Your task to perform on an android device: clear all cookies in the chrome app Image 0: 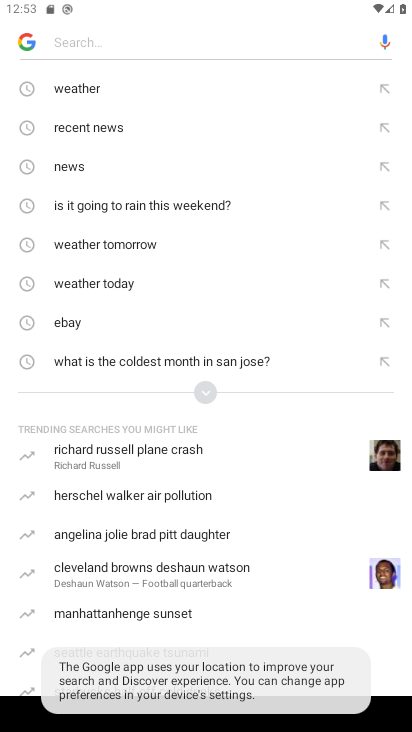
Step 0: press home button
Your task to perform on an android device: clear all cookies in the chrome app Image 1: 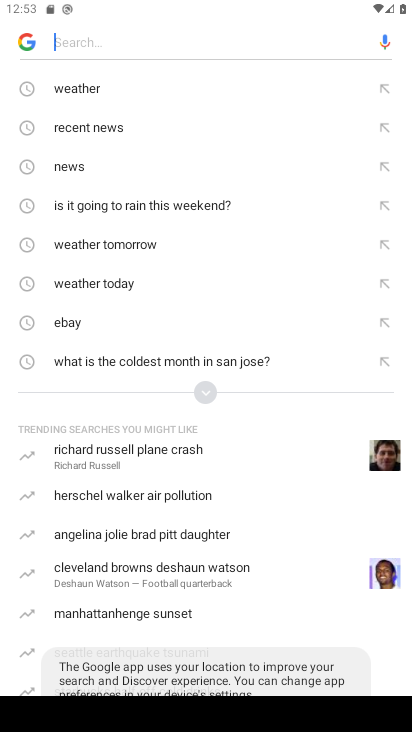
Step 1: press home button
Your task to perform on an android device: clear all cookies in the chrome app Image 2: 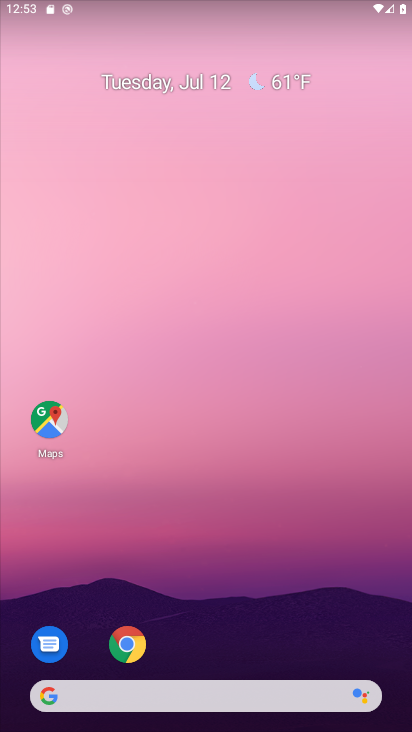
Step 2: drag from (297, 641) to (235, 7)
Your task to perform on an android device: clear all cookies in the chrome app Image 3: 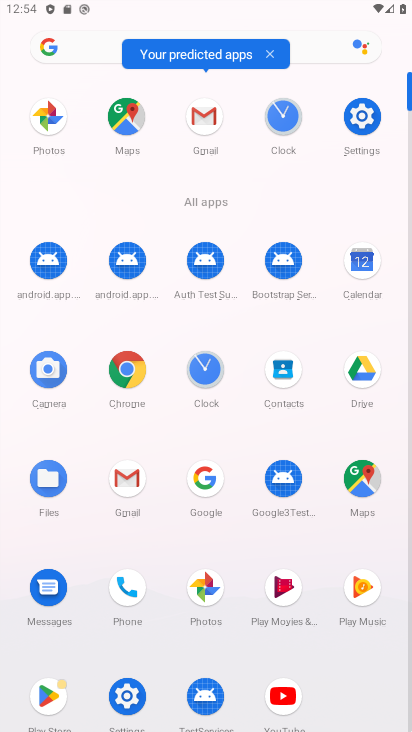
Step 3: click (130, 367)
Your task to perform on an android device: clear all cookies in the chrome app Image 4: 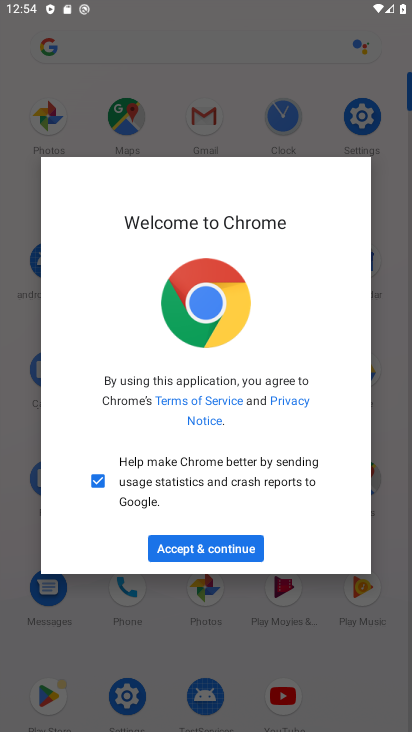
Step 4: click (220, 554)
Your task to perform on an android device: clear all cookies in the chrome app Image 5: 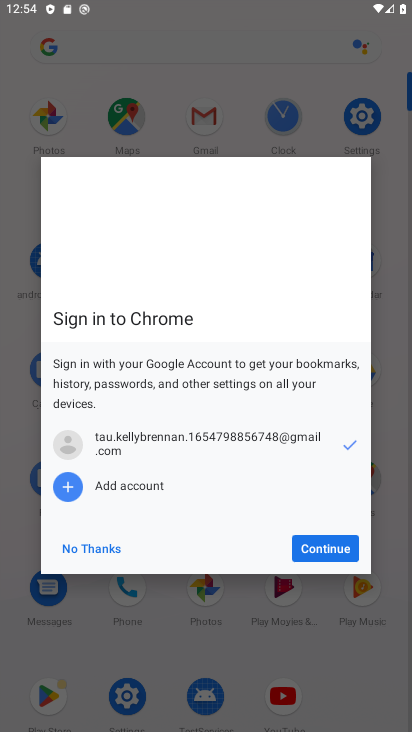
Step 5: click (329, 551)
Your task to perform on an android device: clear all cookies in the chrome app Image 6: 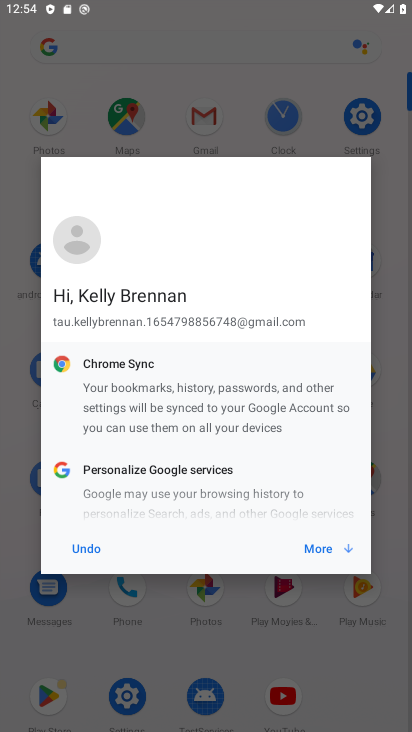
Step 6: click (329, 551)
Your task to perform on an android device: clear all cookies in the chrome app Image 7: 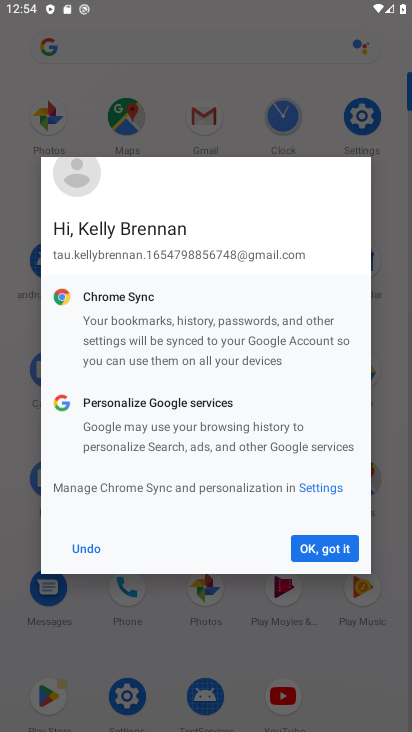
Step 7: click (329, 551)
Your task to perform on an android device: clear all cookies in the chrome app Image 8: 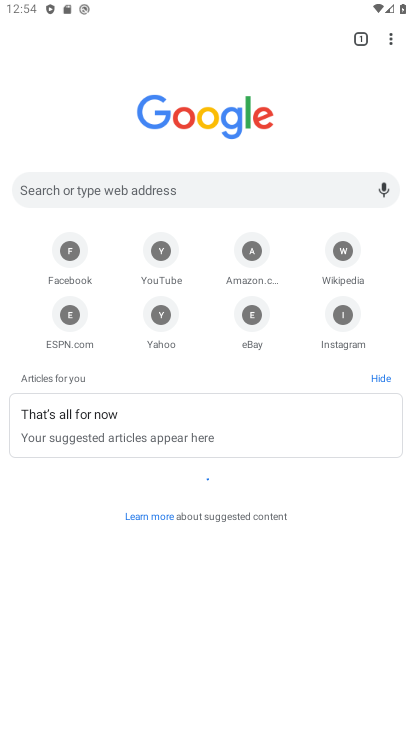
Step 8: click (392, 48)
Your task to perform on an android device: clear all cookies in the chrome app Image 9: 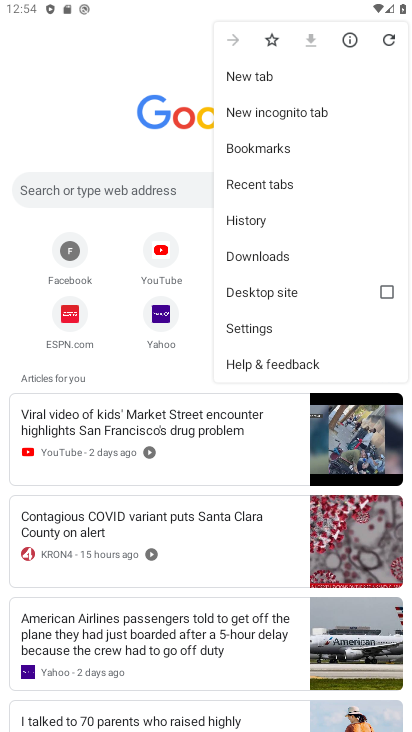
Step 9: click (269, 214)
Your task to perform on an android device: clear all cookies in the chrome app Image 10: 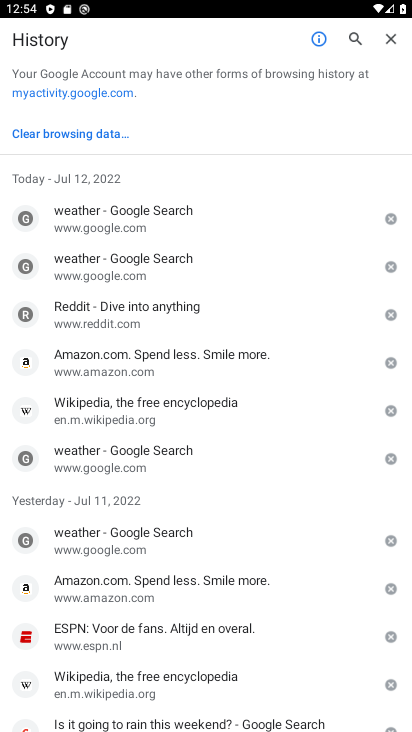
Step 10: click (89, 135)
Your task to perform on an android device: clear all cookies in the chrome app Image 11: 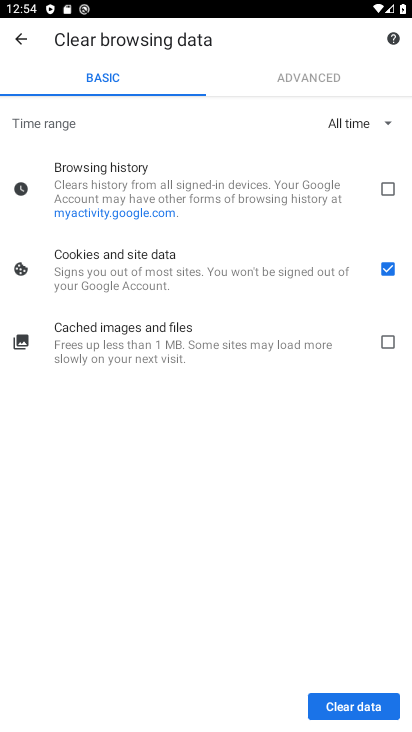
Step 11: click (352, 712)
Your task to perform on an android device: clear all cookies in the chrome app Image 12: 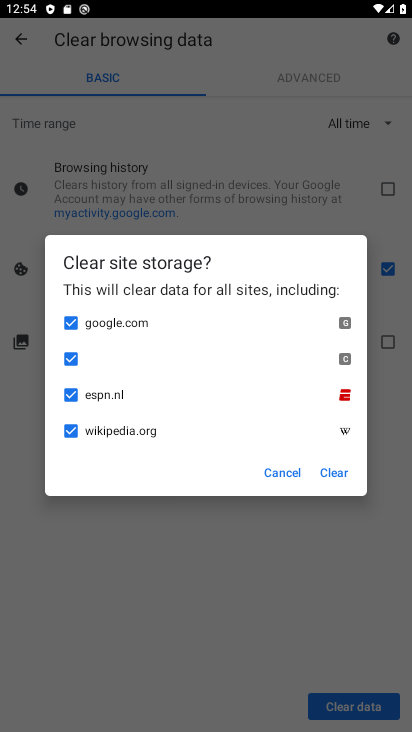
Step 12: click (330, 476)
Your task to perform on an android device: clear all cookies in the chrome app Image 13: 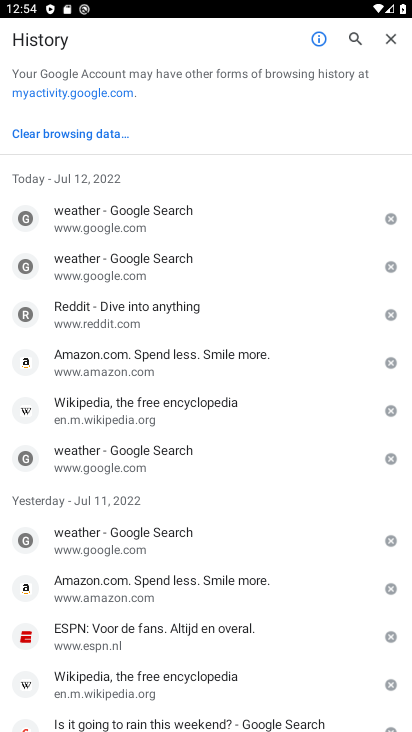
Step 13: task complete